Your task to perform on an android device: Is it going to rain today? Image 0: 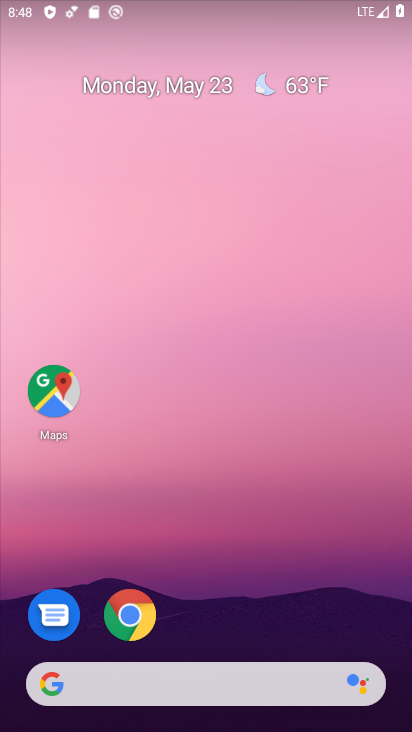
Step 0: drag from (221, 614) to (267, 169)
Your task to perform on an android device: Is it going to rain today? Image 1: 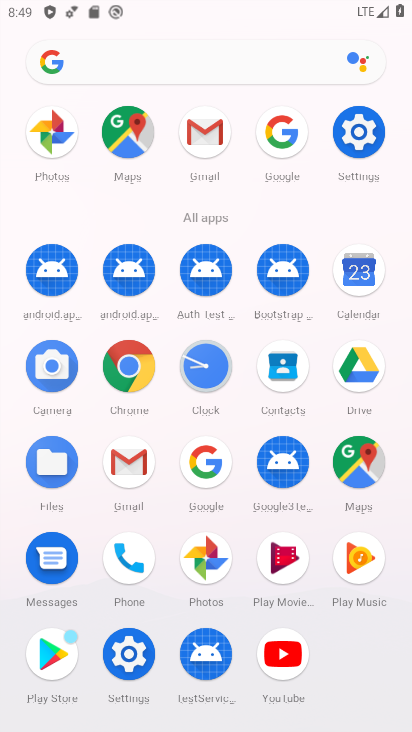
Step 1: click (214, 457)
Your task to perform on an android device: Is it going to rain today? Image 2: 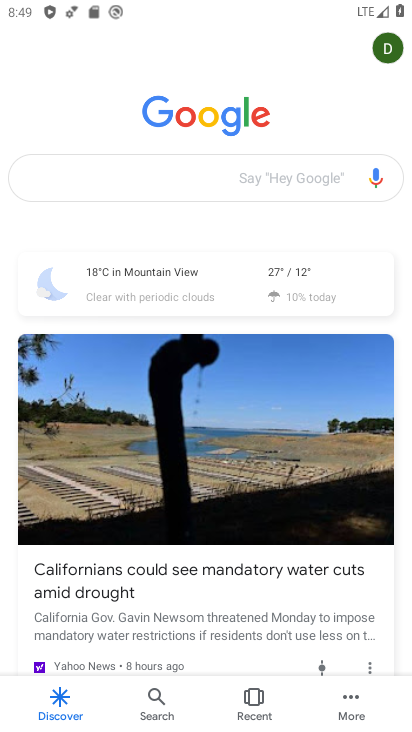
Step 2: click (189, 158)
Your task to perform on an android device: Is it going to rain today? Image 3: 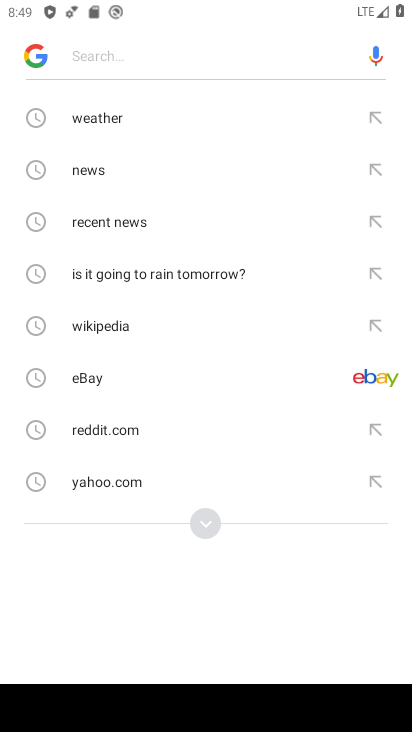
Step 3: type "is it going to rain today"
Your task to perform on an android device: Is it going to rain today? Image 4: 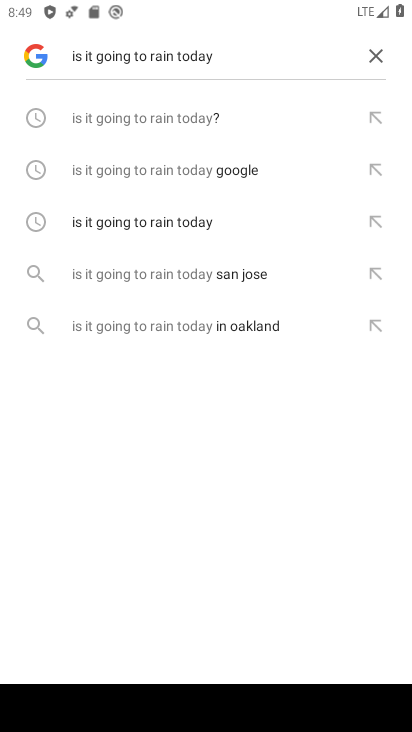
Step 4: click (199, 117)
Your task to perform on an android device: Is it going to rain today? Image 5: 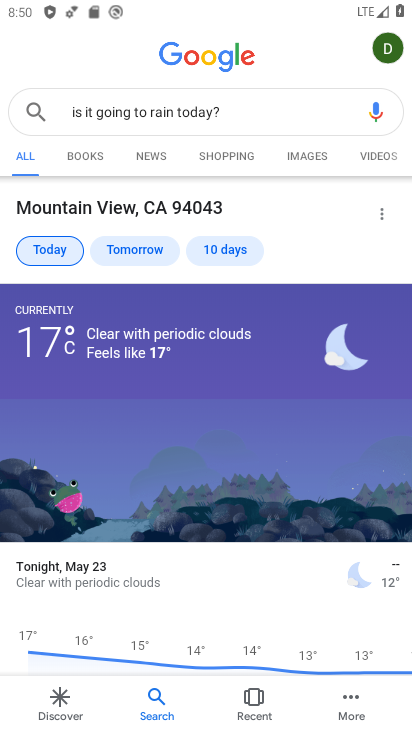
Step 5: task complete